Your task to perform on an android device: Open Youtube and go to the subscriptions tab Image 0: 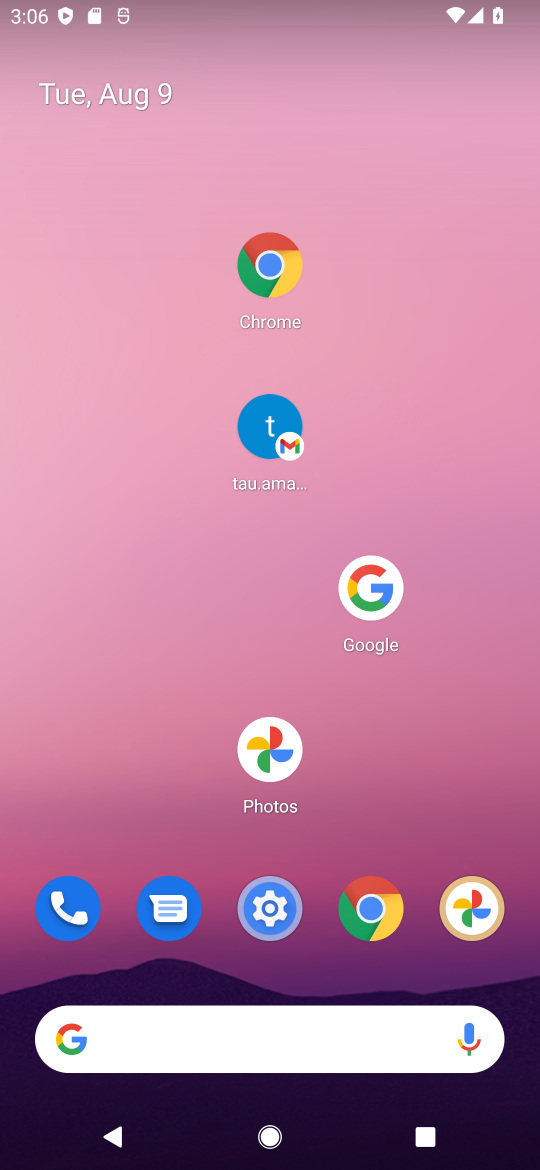
Step 0: drag from (351, 758) to (108, 167)
Your task to perform on an android device: Open Youtube and go to the subscriptions tab Image 1: 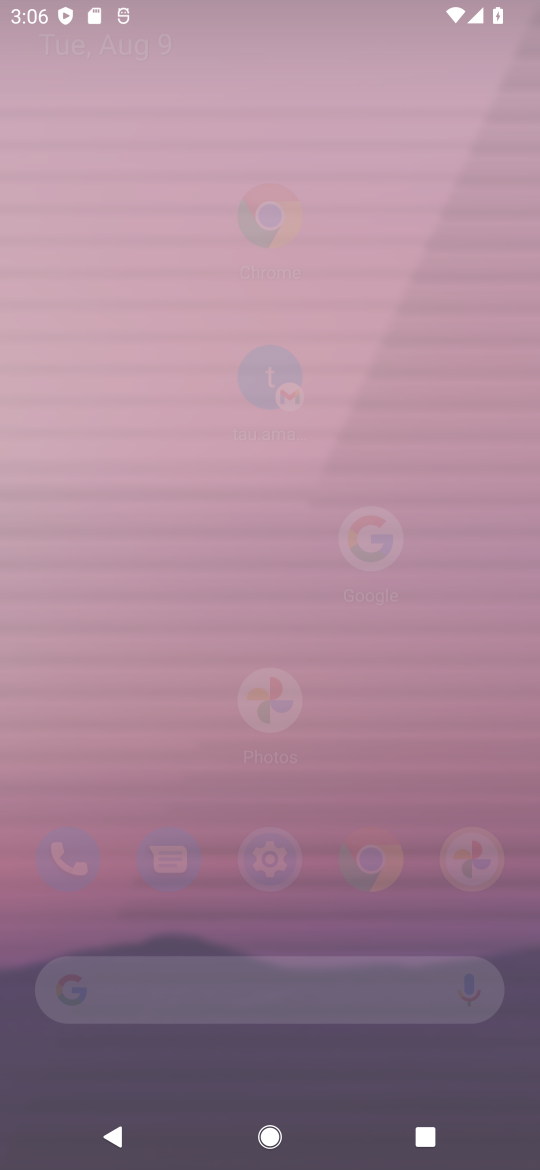
Step 1: drag from (207, 469) to (216, 404)
Your task to perform on an android device: Open Youtube and go to the subscriptions tab Image 2: 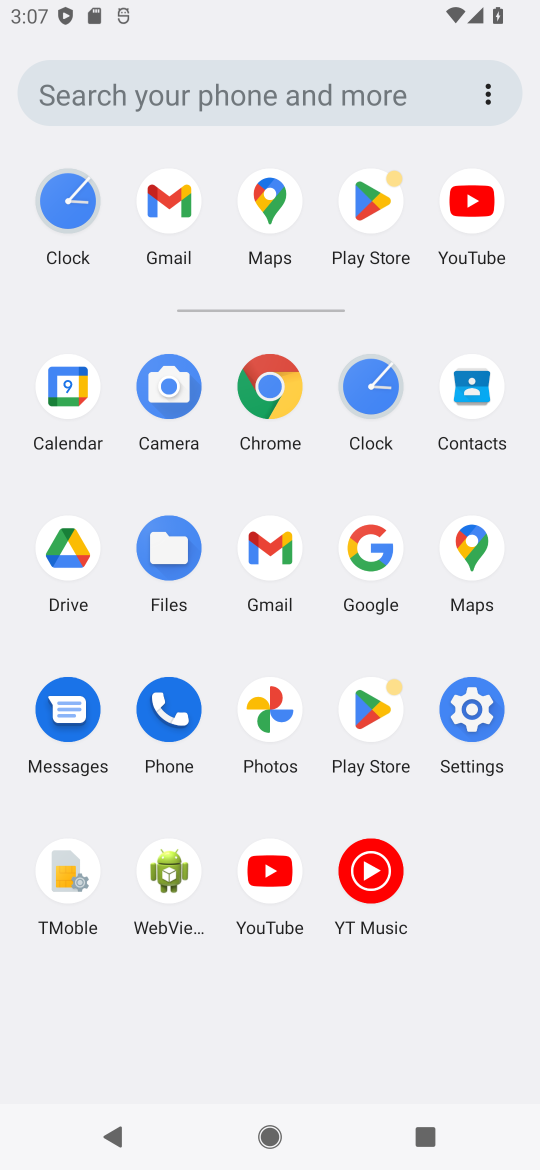
Step 2: click (261, 878)
Your task to perform on an android device: Open Youtube and go to the subscriptions tab Image 3: 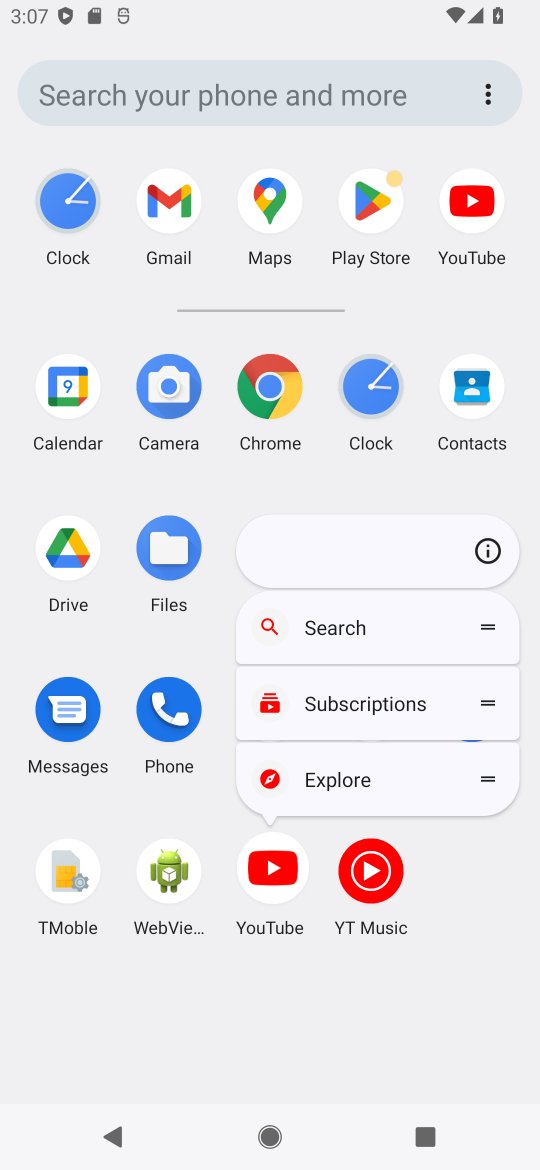
Step 3: click (291, 894)
Your task to perform on an android device: Open Youtube and go to the subscriptions tab Image 4: 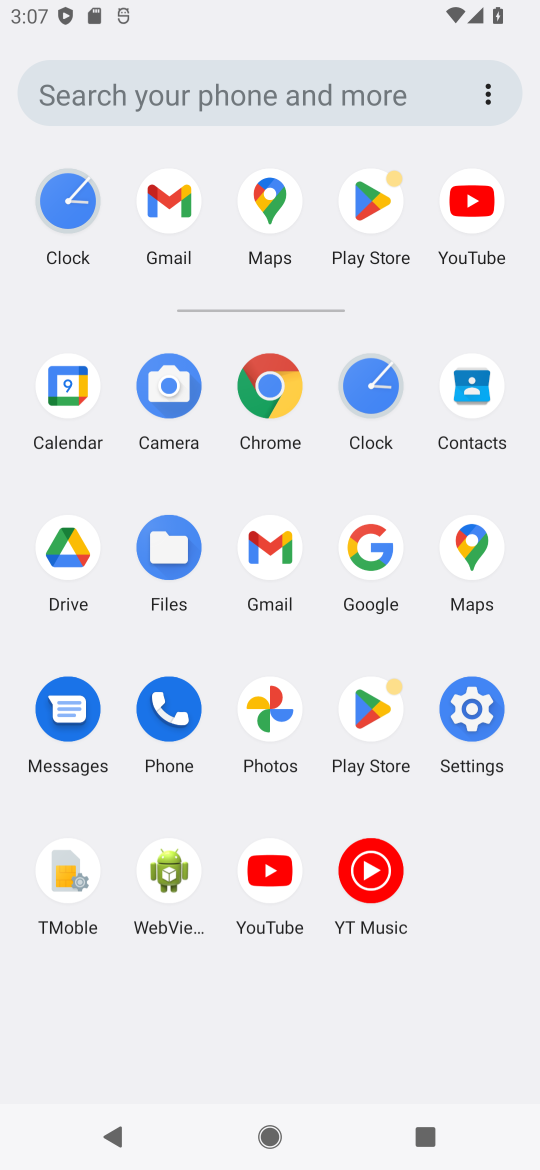
Step 4: click (281, 877)
Your task to perform on an android device: Open Youtube and go to the subscriptions tab Image 5: 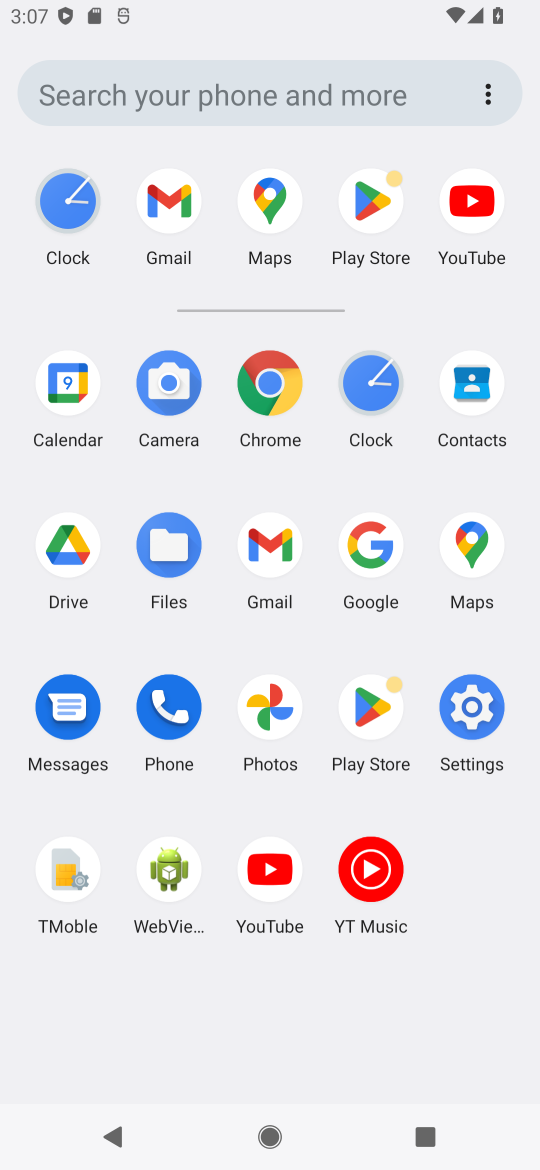
Step 5: click (276, 860)
Your task to perform on an android device: Open Youtube and go to the subscriptions tab Image 6: 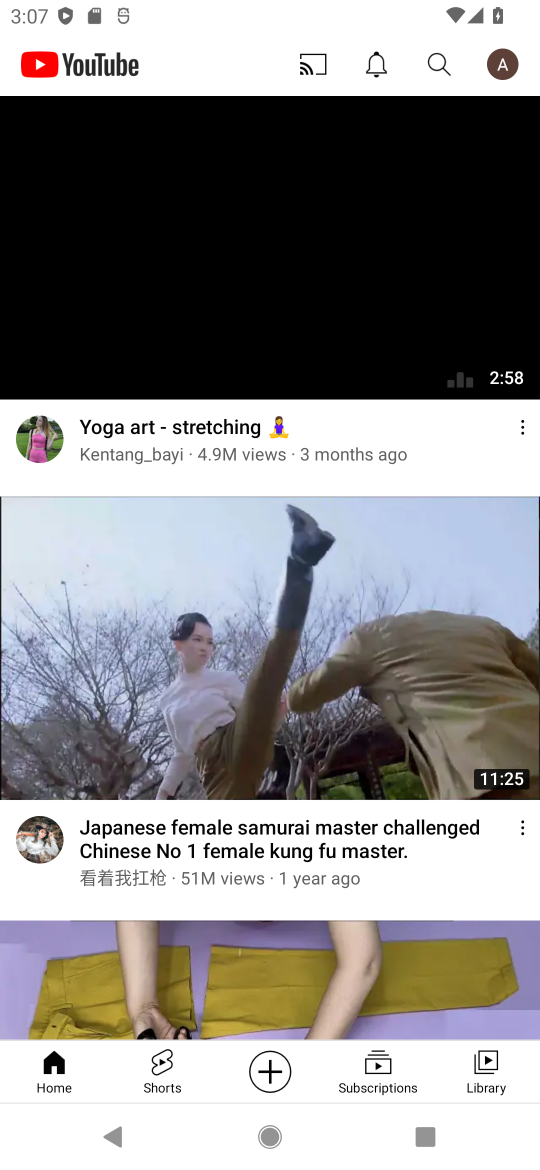
Step 6: task complete